Your task to perform on an android device: Open Yahoo.com Image 0: 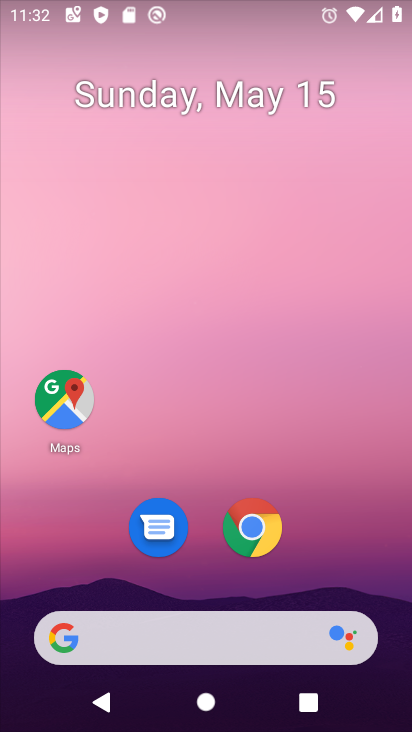
Step 0: click (266, 541)
Your task to perform on an android device: Open Yahoo.com Image 1: 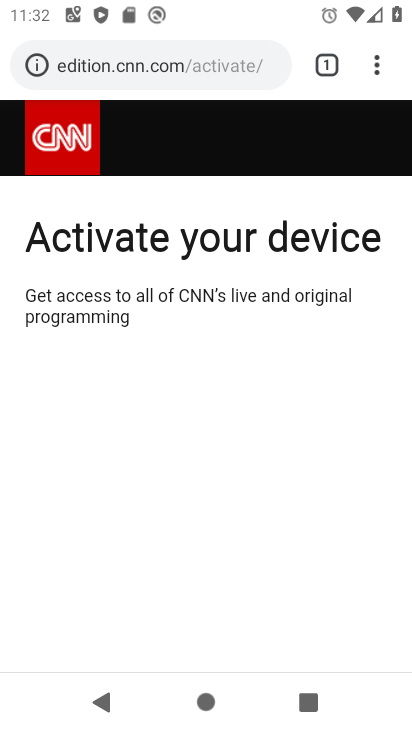
Step 1: click (235, 80)
Your task to perform on an android device: Open Yahoo.com Image 2: 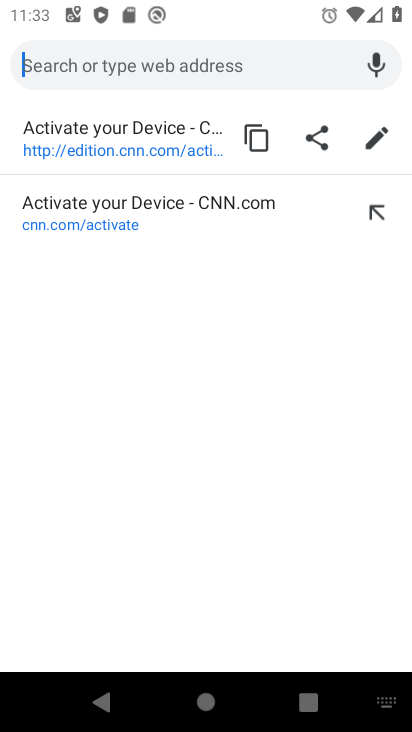
Step 2: type "yahoo.com"
Your task to perform on an android device: Open Yahoo.com Image 3: 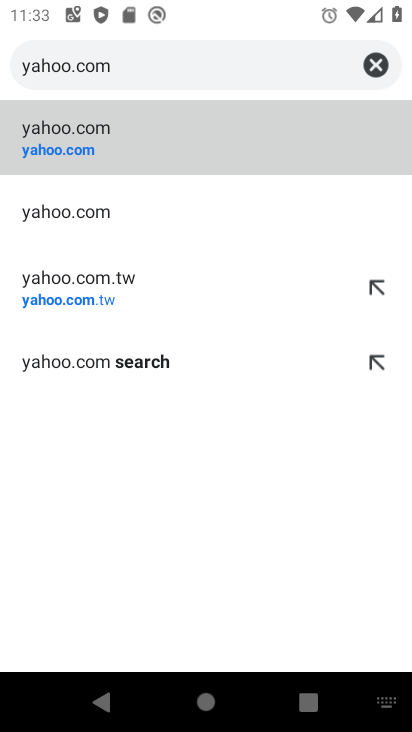
Step 3: click (135, 133)
Your task to perform on an android device: Open Yahoo.com Image 4: 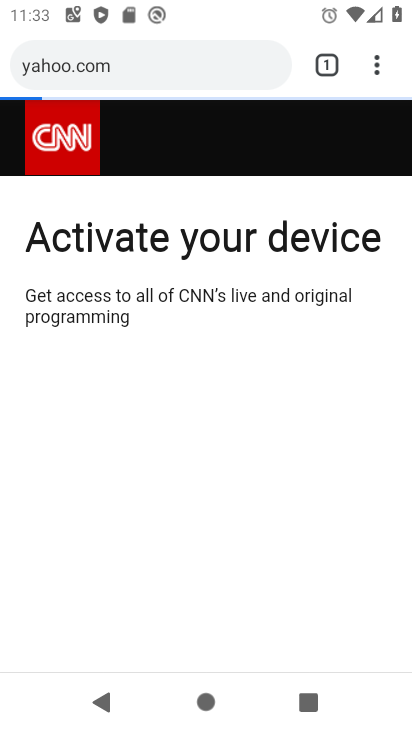
Step 4: task complete